Your task to perform on an android device: What is the recent news? Image 0: 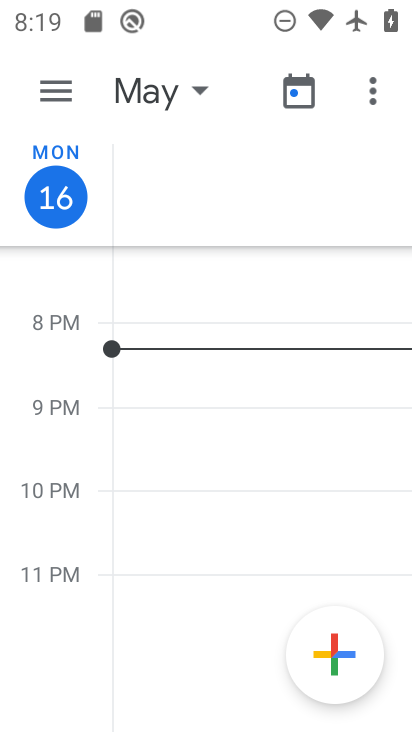
Step 0: press home button
Your task to perform on an android device: What is the recent news? Image 1: 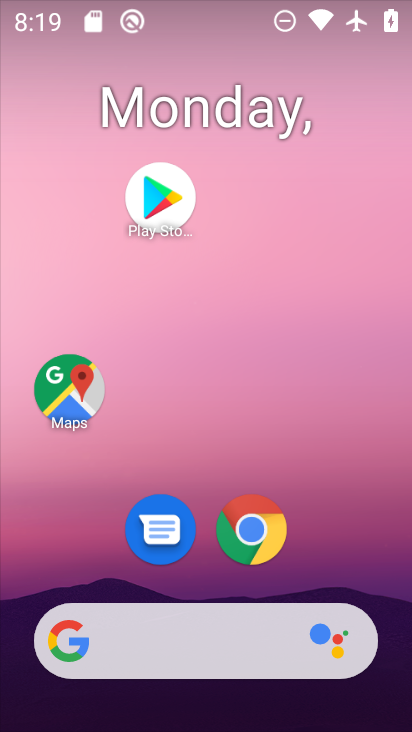
Step 1: drag from (12, 274) to (410, 534)
Your task to perform on an android device: What is the recent news? Image 2: 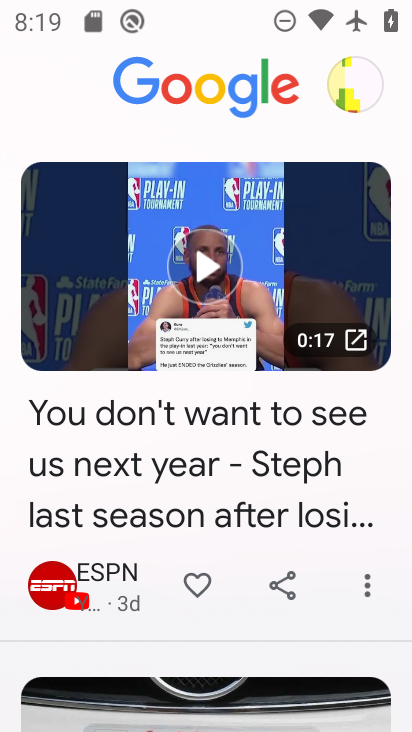
Step 2: drag from (195, 542) to (205, 159)
Your task to perform on an android device: What is the recent news? Image 3: 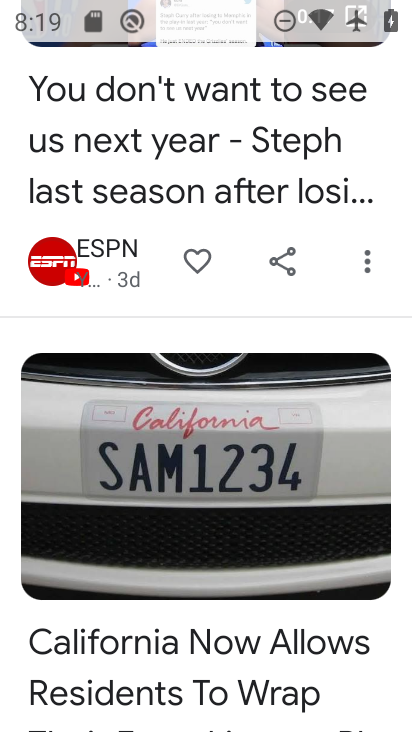
Step 3: click (205, 159)
Your task to perform on an android device: What is the recent news? Image 4: 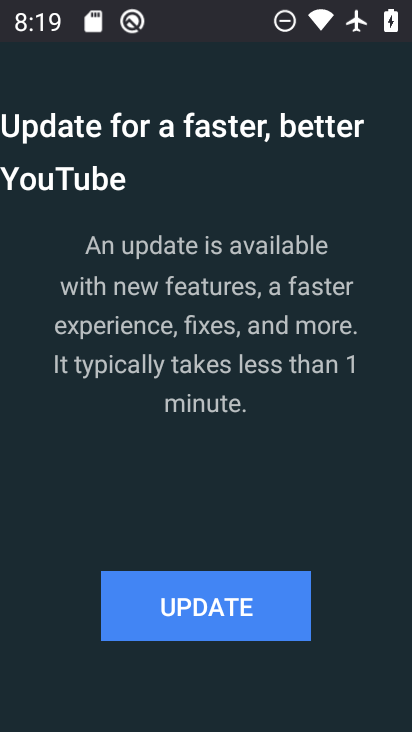
Step 4: task complete